Your task to perform on an android device: check out phone information Image 0: 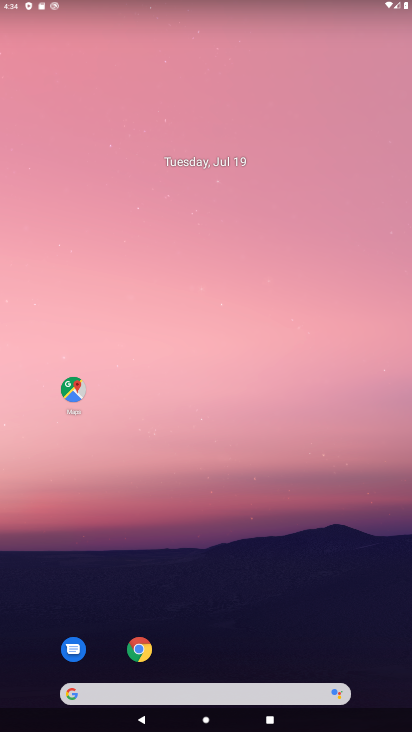
Step 0: press home button
Your task to perform on an android device: check out phone information Image 1: 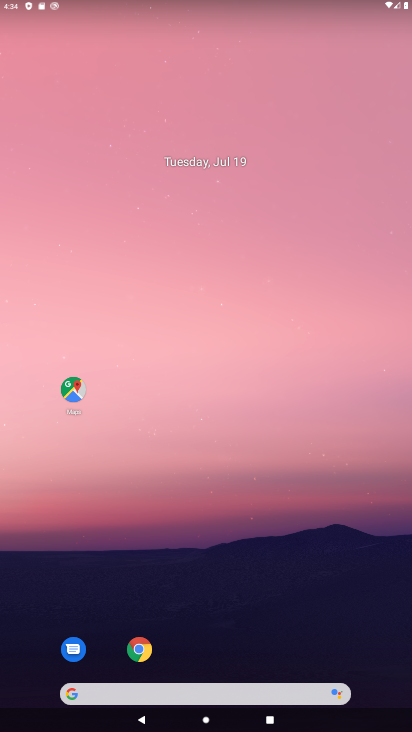
Step 1: drag from (209, 633) to (263, 71)
Your task to perform on an android device: check out phone information Image 2: 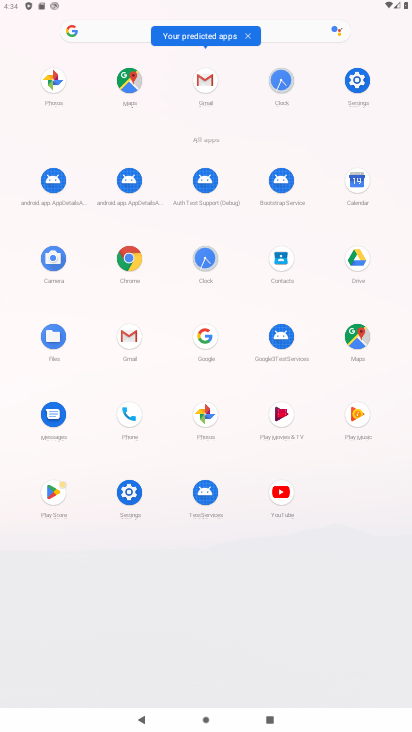
Step 2: click (355, 80)
Your task to perform on an android device: check out phone information Image 3: 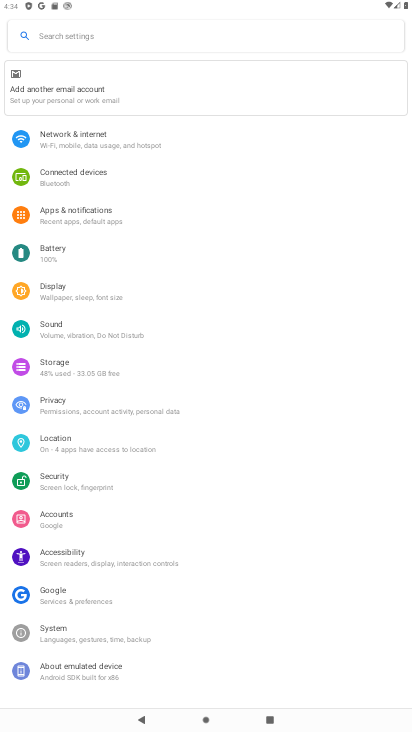
Step 3: click (106, 667)
Your task to perform on an android device: check out phone information Image 4: 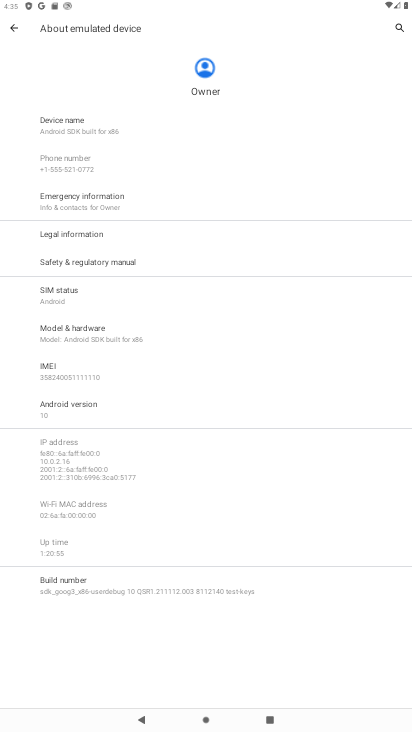
Step 4: task complete